Your task to perform on an android device: Go to calendar. Show me events next week Image 0: 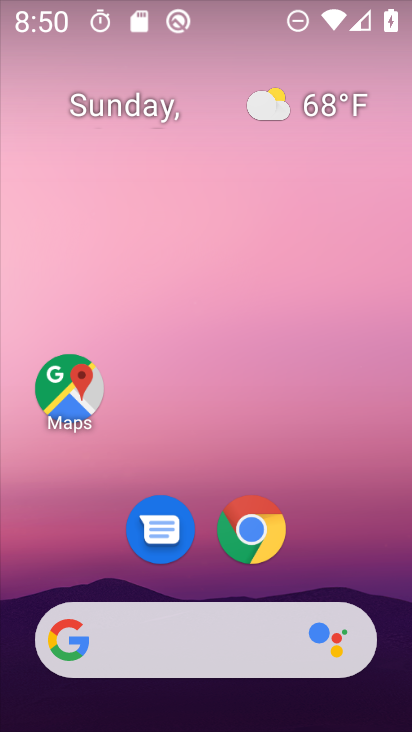
Step 0: press home button
Your task to perform on an android device: Go to calendar. Show me events next week Image 1: 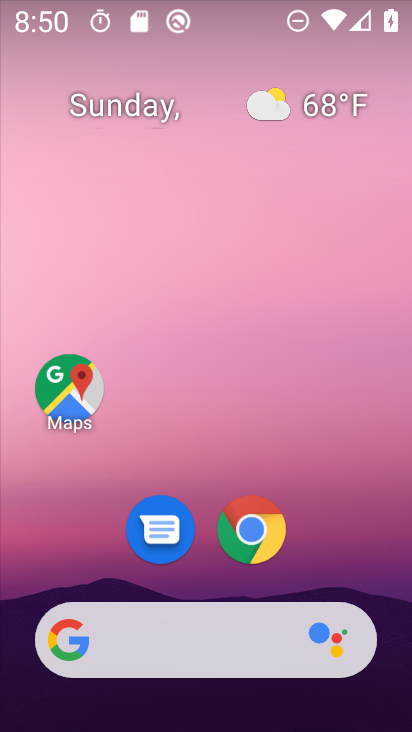
Step 1: drag from (205, 573) to (250, 18)
Your task to perform on an android device: Go to calendar. Show me events next week Image 2: 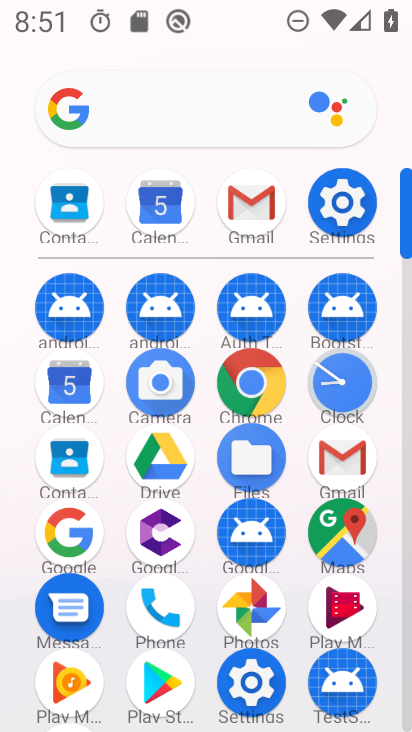
Step 2: click (73, 379)
Your task to perform on an android device: Go to calendar. Show me events next week Image 3: 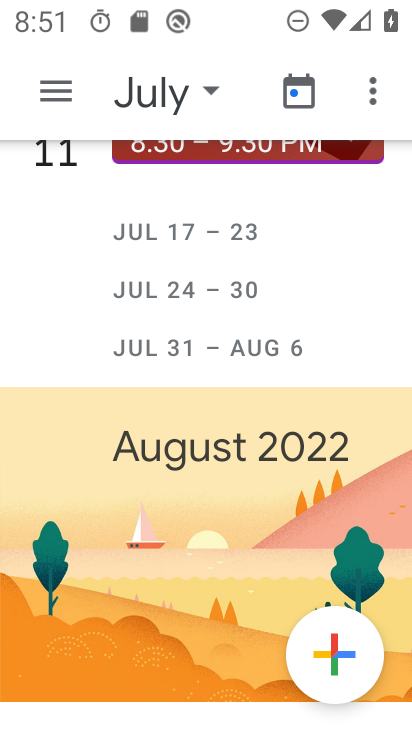
Step 3: click (213, 89)
Your task to perform on an android device: Go to calendar. Show me events next week Image 4: 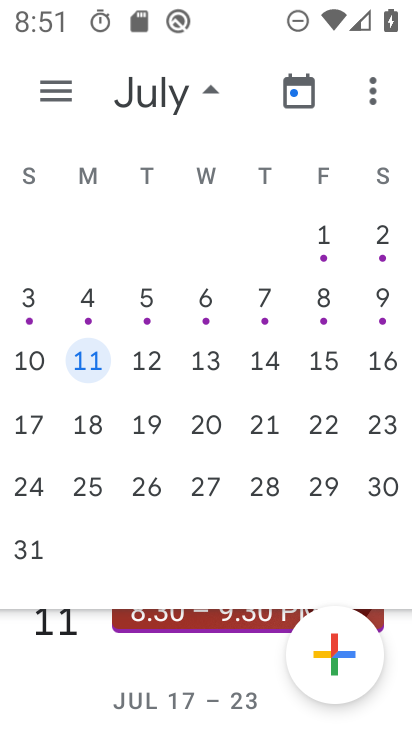
Step 4: drag from (44, 366) to (398, 381)
Your task to perform on an android device: Go to calendar. Show me events next week Image 5: 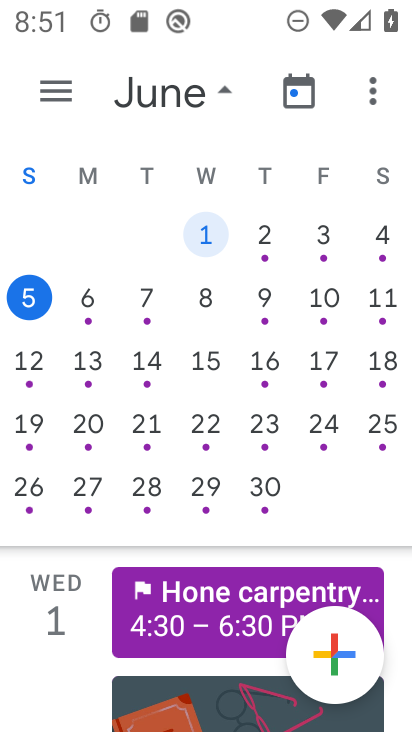
Step 5: click (26, 359)
Your task to perform on an android device: Go to calendar. Show me events next week Image 6: 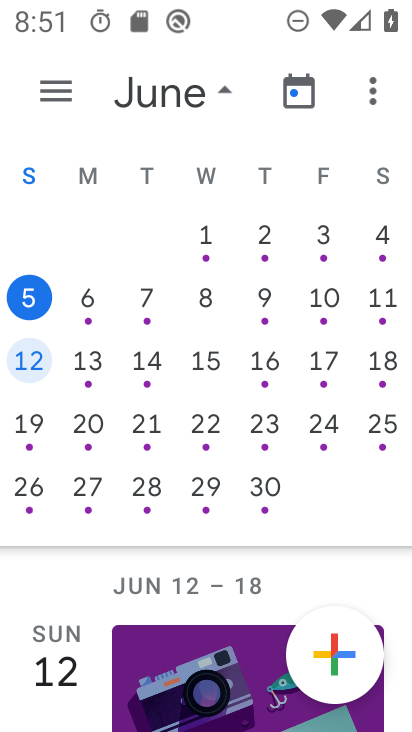
Step 6: click (220, 87)
Your task to perform on an android device: Go to calendar. Show me events next week Image 7: 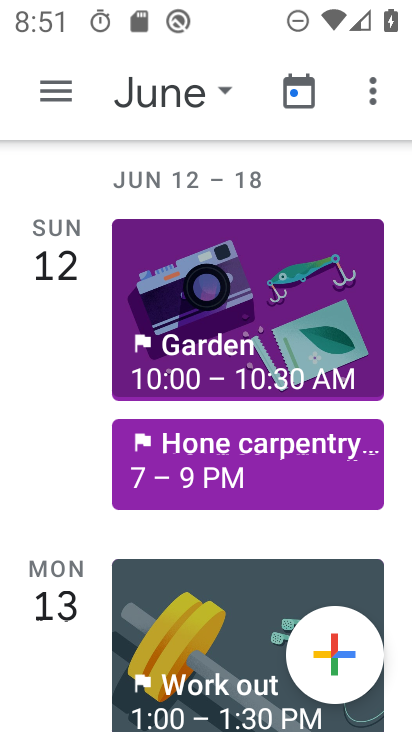
Step 7: task complete